Your task to perform on an android device: make emails show in primary in the gmail app Image 0: 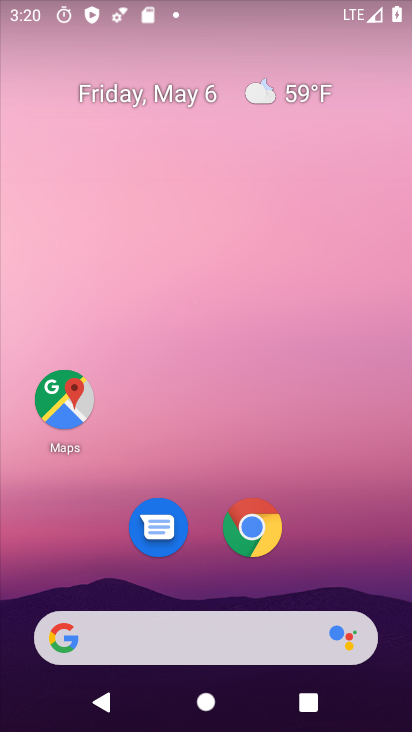
Step 0: drag from (312, 605) to (270, 137)
Your task to perform on an android device: make emails show in primary in the gmail app Image 1: 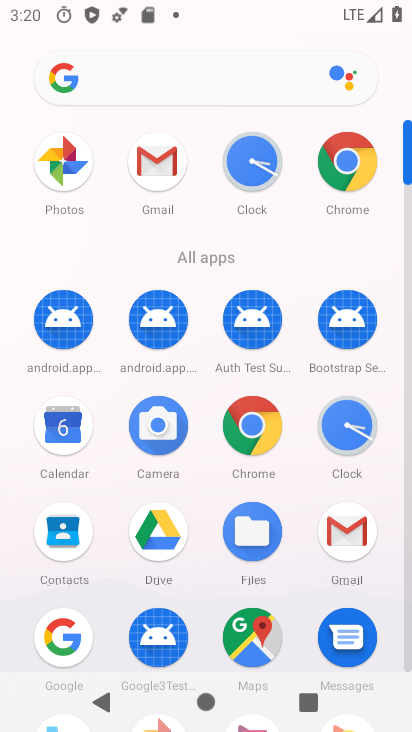
Step 1: click (144, 168)
Your task to perform on an android device: make emails show in primary in the gmail app Image 2: 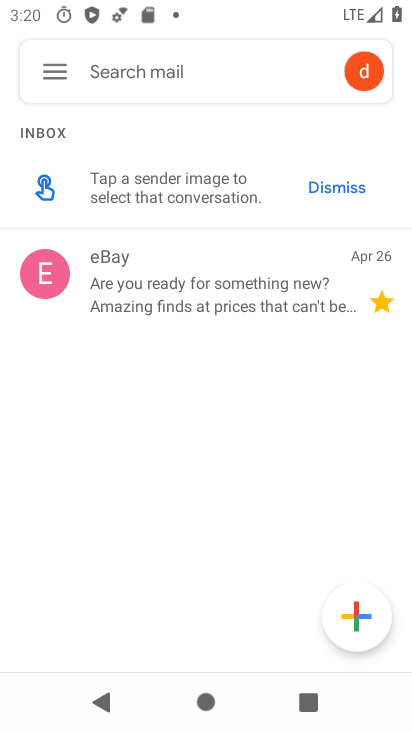
Step 2: click (44, 73)
Your task to perform on an android device: make emails show in primary in the gmail app Image 3: 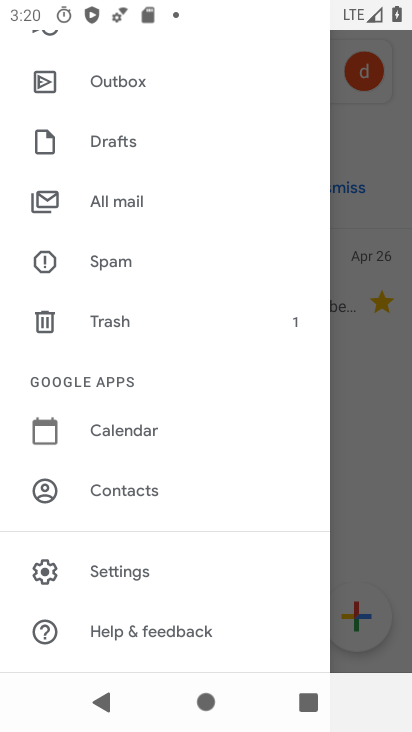
Step 3: click (134, 573)
Your task to perform on an android device: make emails show in primary in the gmail app Image 4: 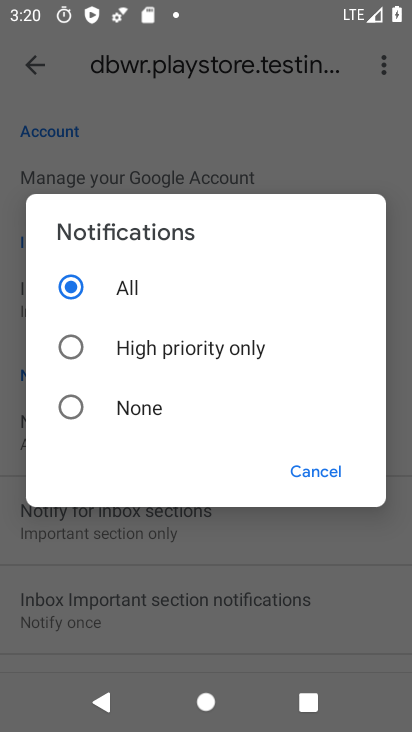
Step 4: click (297, 473)
Your task to perform on an android device: make emails show in primary in the gmail app Image 5: 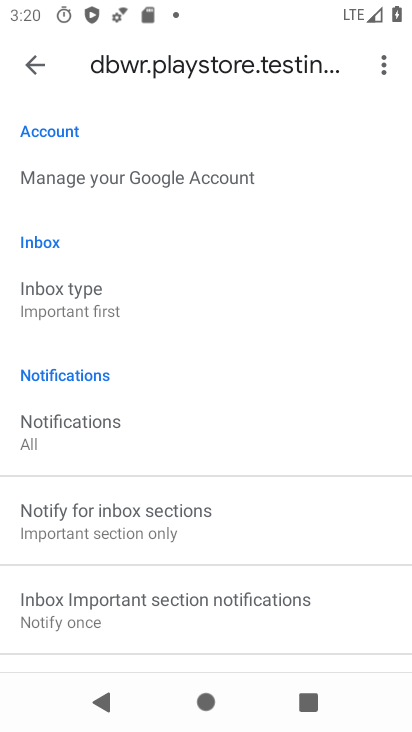
Step 5: click (90, 308)
Your task to perform on an android device: make emails show in primary in the gmail app Image 6: 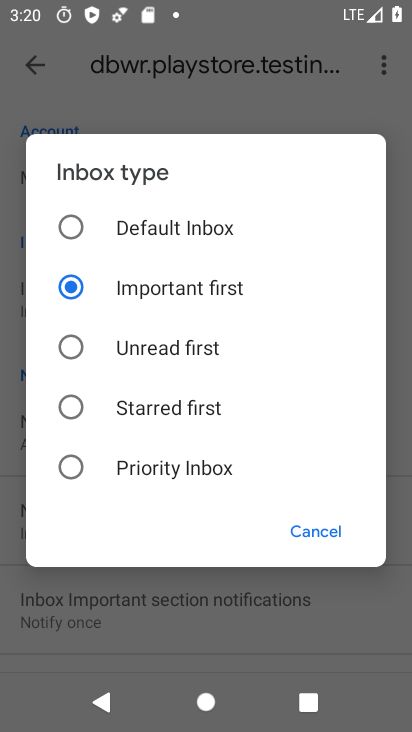
Step 6: click (303, 535)
Your task to perform on an android device: make emails show in primary in the gmail app Image 7: 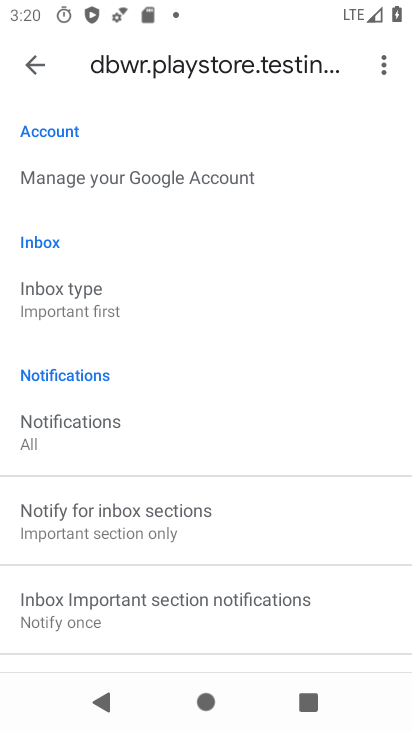
Step 7: task complete